Your task to perform on an android device: turn on javascript in the chrome app Image 0: 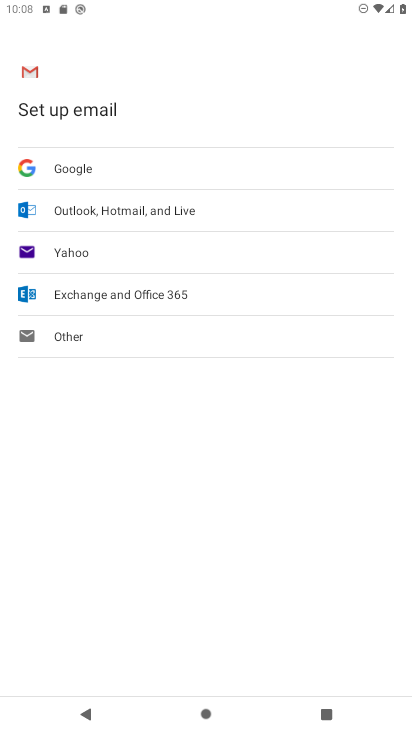
Step 0: press home button
Your task to perform on an android device: turn on javascript in the chrome app Image 1: 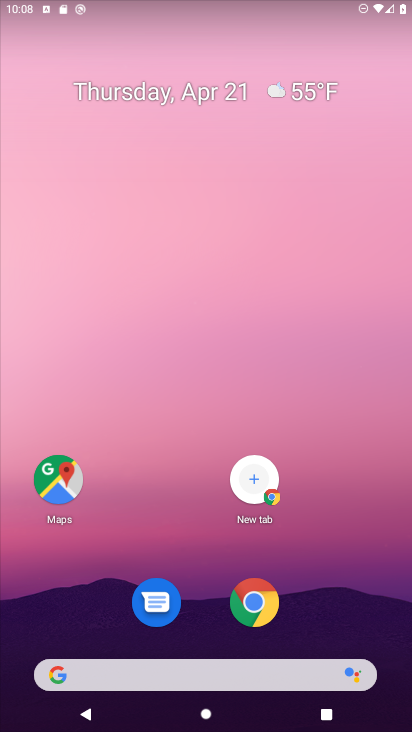
Step 1: click (249, 612)
Your task to perform on an android device: turn on javascript in the chrome app Image 2: 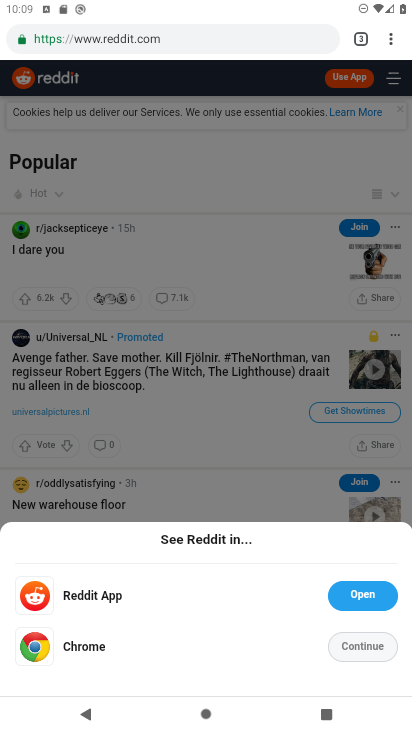
Step 2: click (395, 44)
Your task to perform on an android device: turn on javascript in the chrome app Image 3: 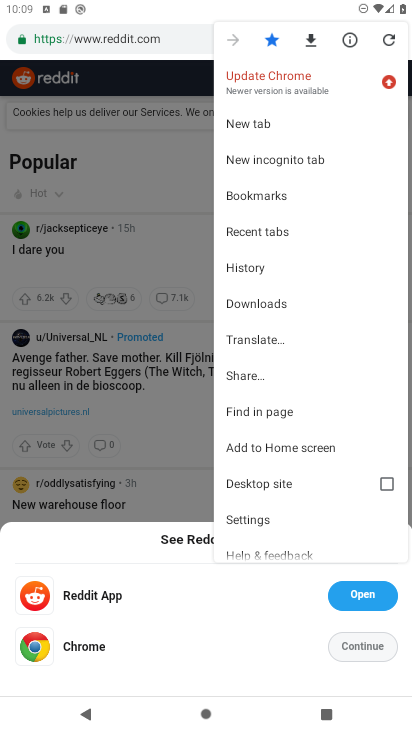
Step 3: click (243, 511)
Your task to perform on an android device: turn on javascript in the chrome app Image 4: 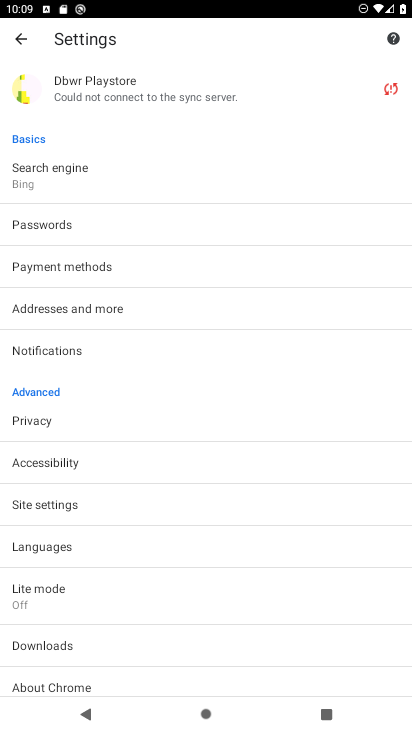
Step 4: click (43, 510)
Your task to perform on an android device: turn on javascript in the chrome app Image 5: 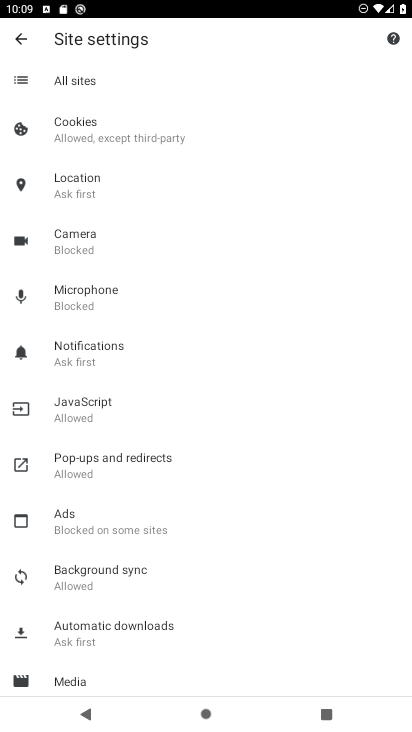
Step 5: click (144, 396)
Your task to perform on an android device: turn on javascript in the chrome app Image 6: 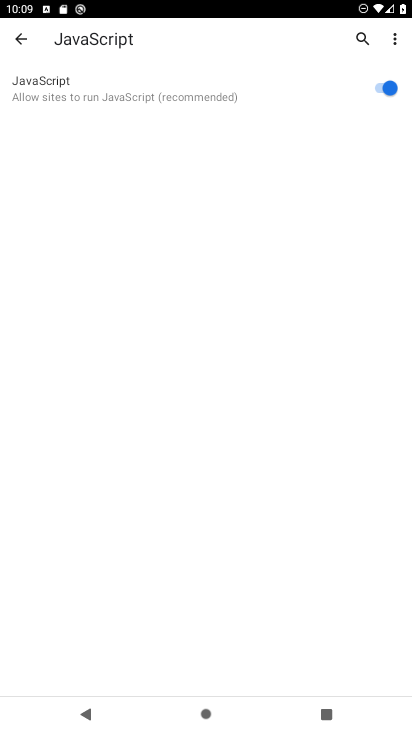
Step 6: task complete